Your task to perform on an android device: turn vacation reply on in the gmail app Image 0: 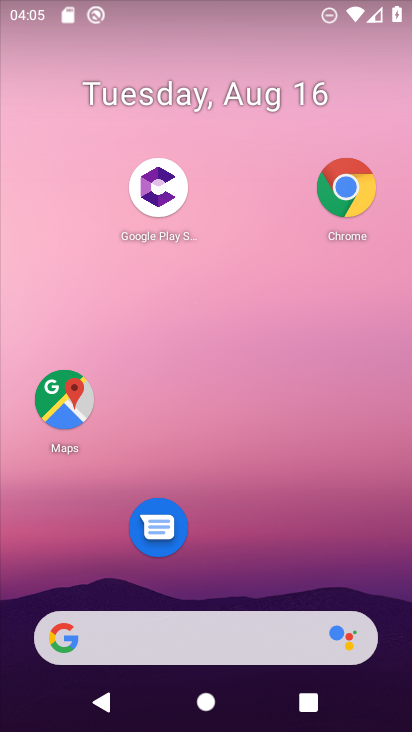
Step 0: press home button
Your task to perform on an android device: turn vacation reply on in the gmail app Image 1: 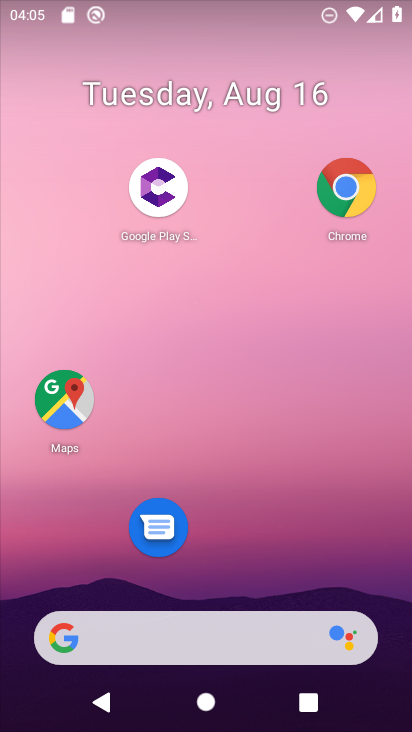
Step 1: drag from (257, 586) to (289, 50)
Your task to perform on an android device: turn vacation reply on in the gmail app Image 2: 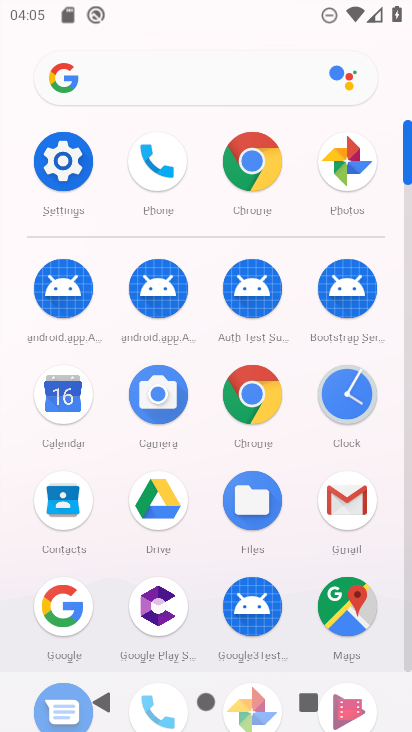
Step 2: click (342, 488)
Your task to perform on an android device: turn vacation reply on in the gmail app Image 3: 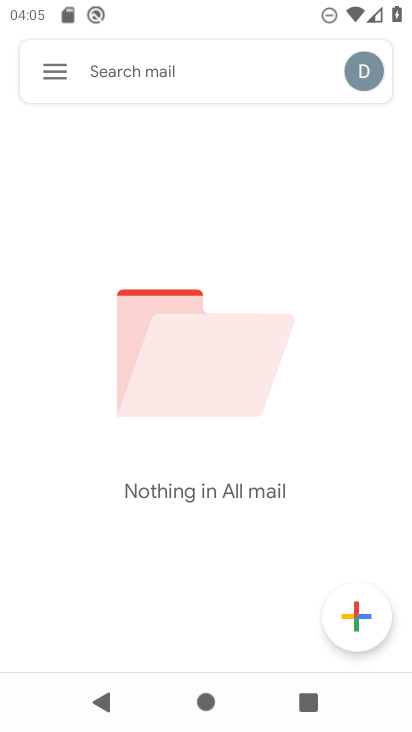
Step 3: click (46, 67)
Your task to perform on an android device: turn vacation reply on in the gmail app Image 4: 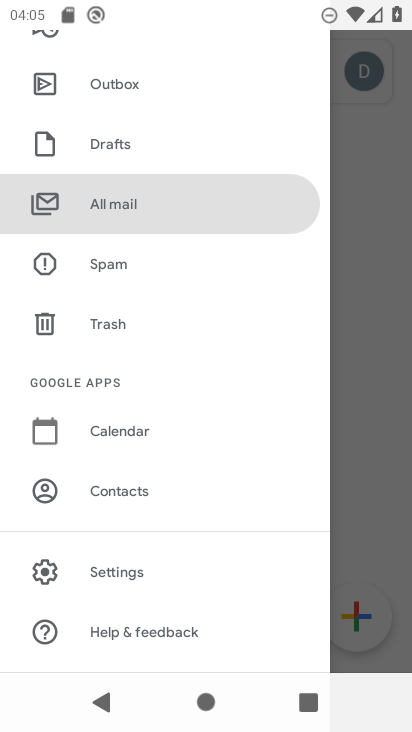
Step 4: click (140, 565)
Your task to perform on an android device: turn vacation reply on in the gmail app Image 5: 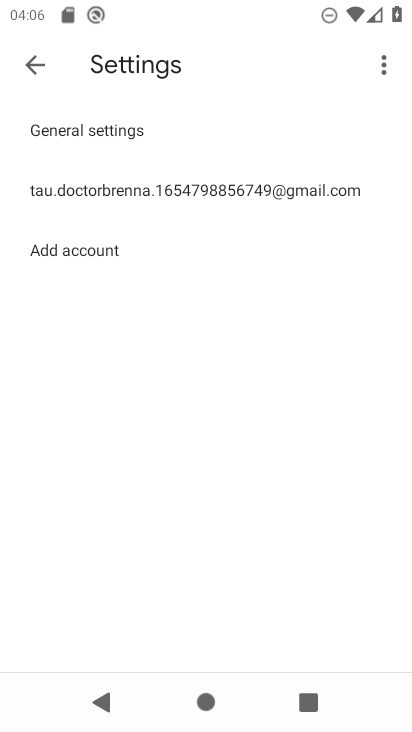
Step 5: click (121, 193)
Your task to perform on an android device: turn vacation reply on in the gmail app Image 6: 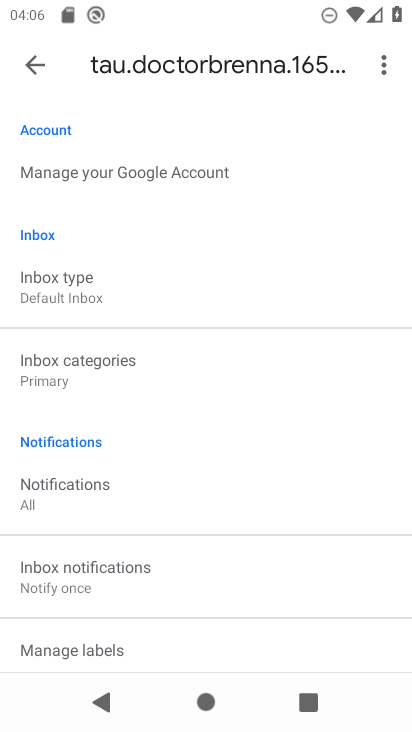
Step 6: drag from (158, 610) to (230, 133)
Your task to perform on an android device: turn vacation reply on in the gmail app Image 7: 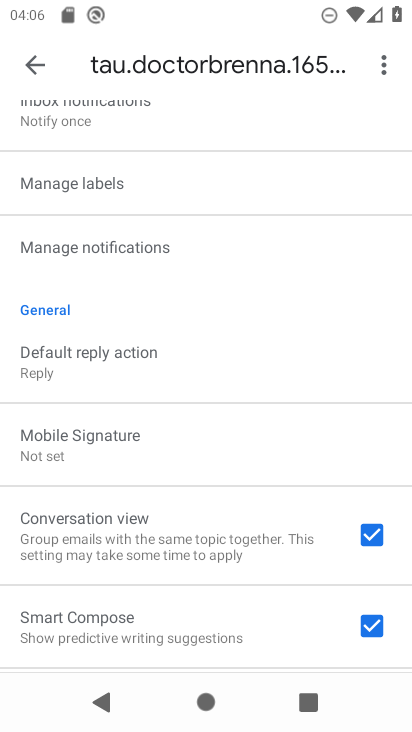
Step 7: drag from (161, 638) to (169, 162)
Your task to perform on an android device: turn vacation reply on in the gmail app Image 8: 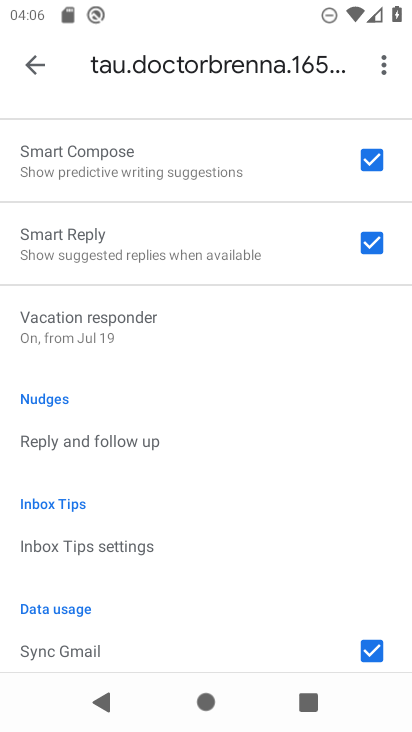
Step 8: click (152, 331)
Your task to perform on an android device: turn vacation reply on in the gmail app Image 9: 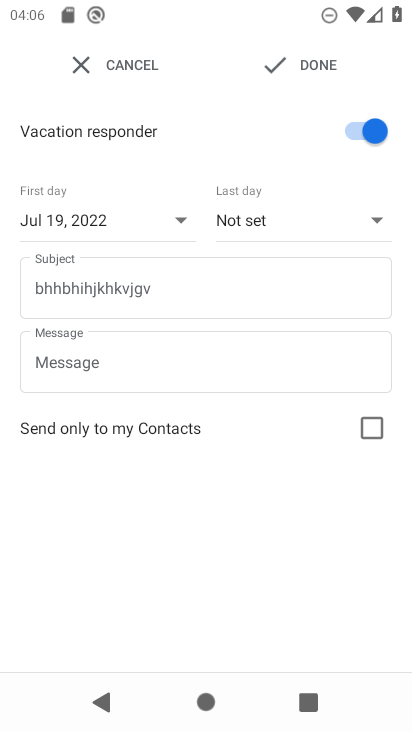
Step 9: task complete